Your task to perform on an android device: turn off notifications settings in the gmail app Image 0: 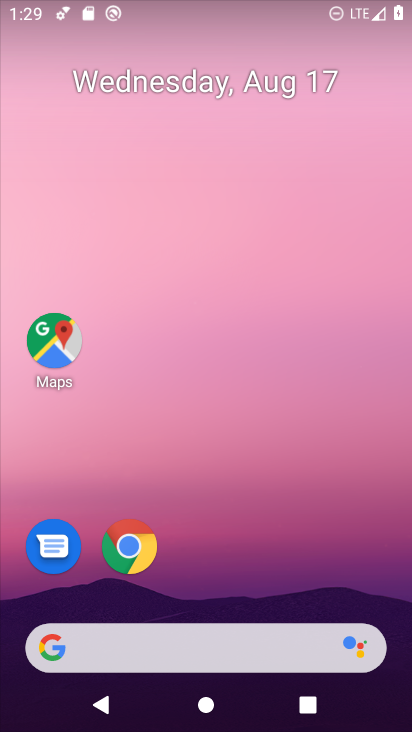
Step 0: drag from (259, 575) to (228, 180)
Your task to perform on an android device: turn off notifications settings in the gmail app Image 1: 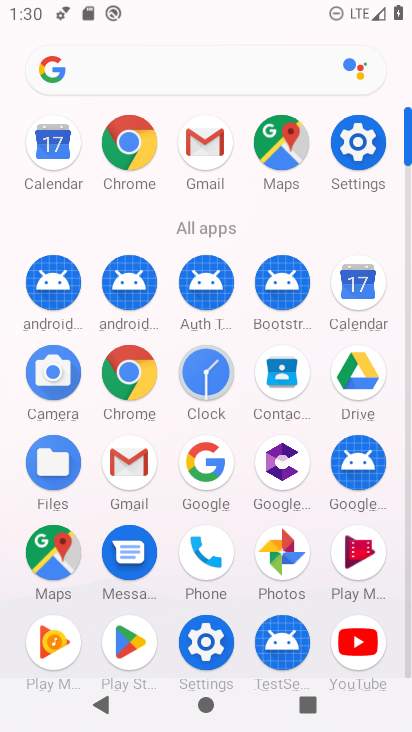
Step 1: click (131, 467)
Your task to perform on an android device: turn off notifications settings in the gmail app Image 2: 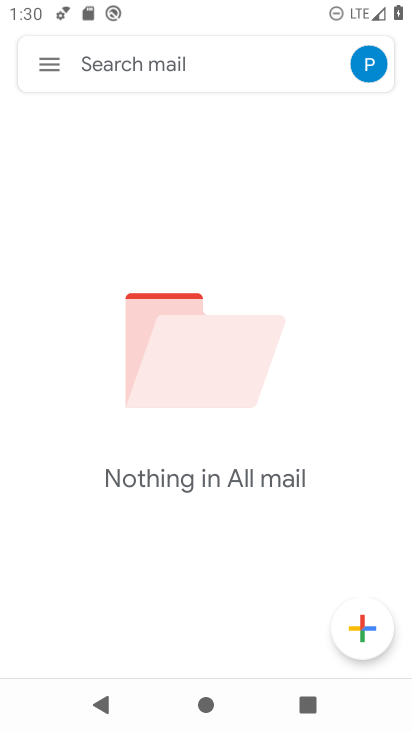
Step 2: click (41, 52)
Your task to perform on an android device: turn off notifications settings in the gmail app Image 3: 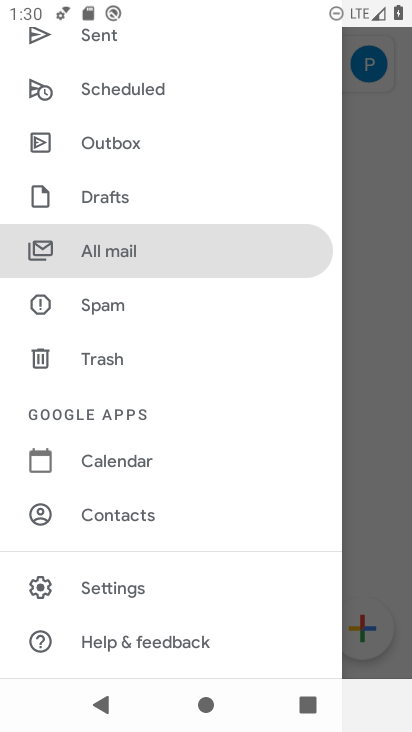
Step 3: click (117, 588)
Your task to perform on an android device: turn off notifications settings in the gmail app Image 4: 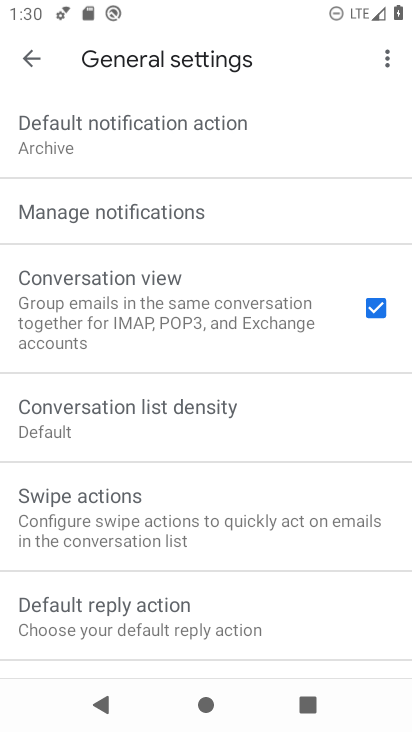
Step 4: click (124, 207)
Your task to perform on an android device: turn off notifications settings in the gmail app Image 5: 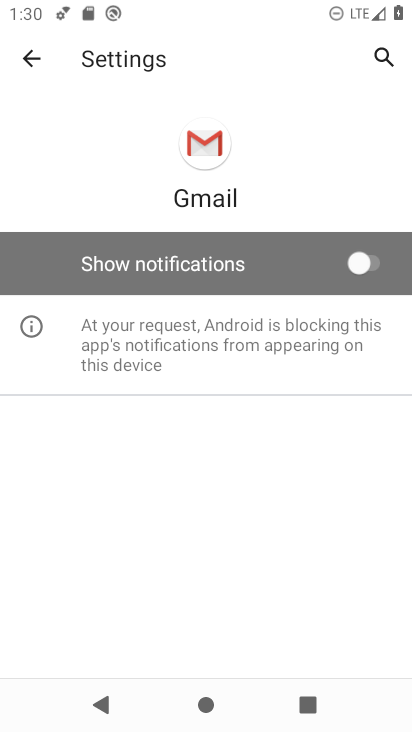
Step 5: task complete